Your task to perform on an android device: See recent photos Image 0: 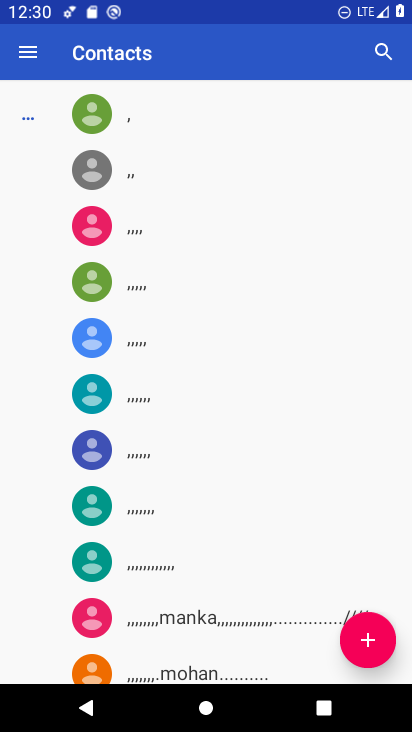
Step 0: press home button
Your task to perform on an android device: See recent photos Image 1: 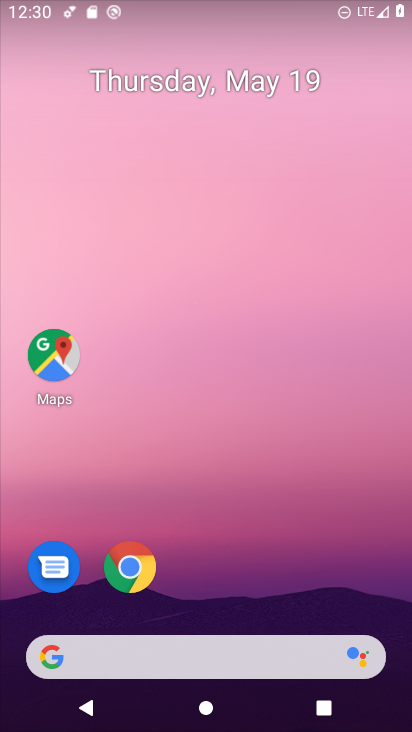
Step 1: drag from (276, 491) to (202, 18)
Your task to perform on an android device: See recent photos Image 2: 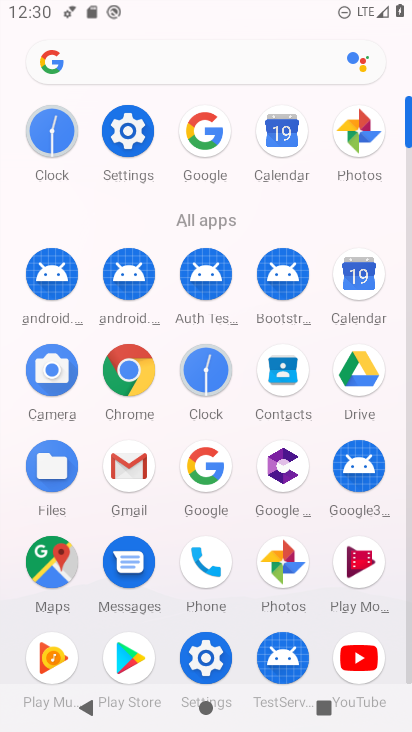
Step 2: click (352, 137)
Your task to perform on an android device: See recent photos Image 3: 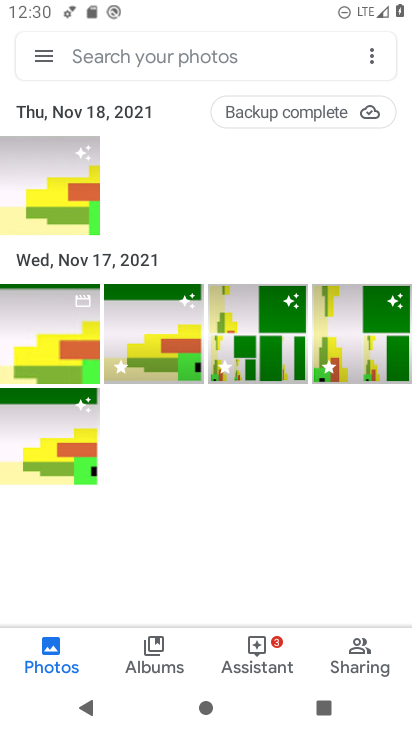
Step 3: task complete